Your task to perform on an android device: allow cookies in the chrome app Image 0: 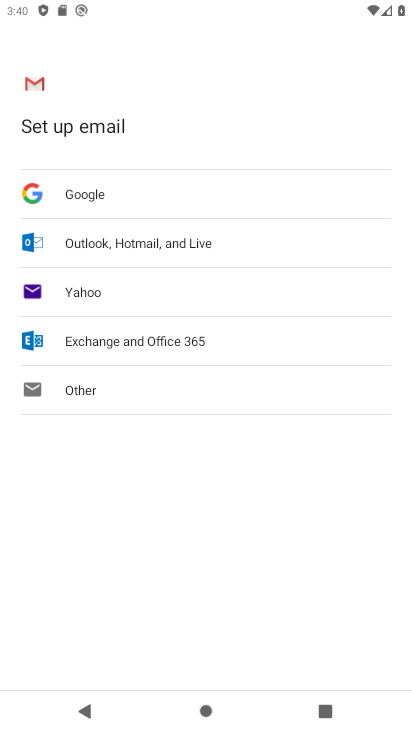
Step 0: press home button
Your task to perform on an android device: allow cookies in the chrome app Image 1: 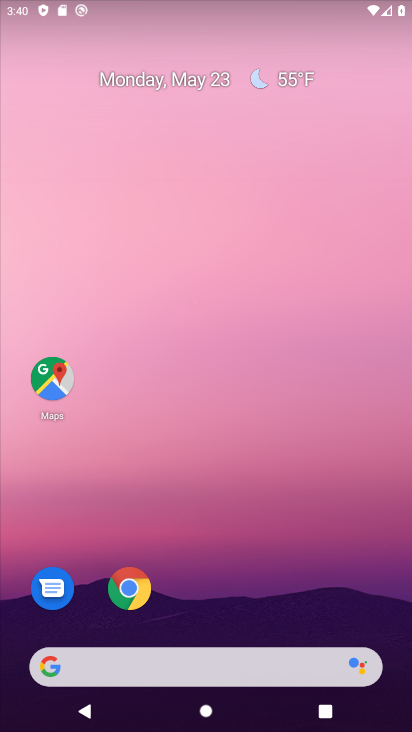
Step 1: click (122, 593)
Your task to perform on an android device: allow cookies in the chrome app Image 2: 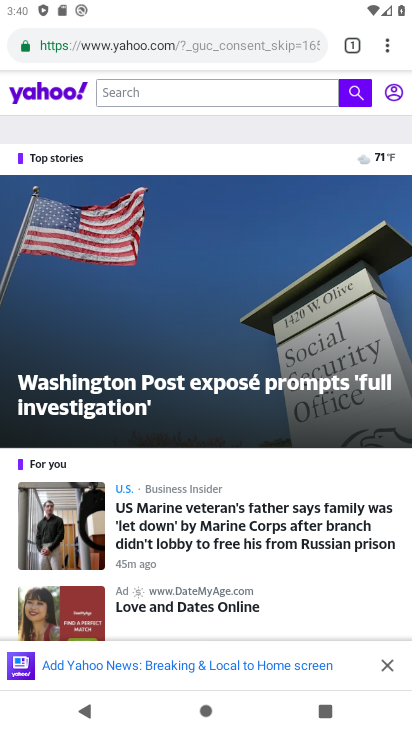
Step 2: click (381, 52)
Your task to perform on an android device: allow cookies in the chrome app Image 3: 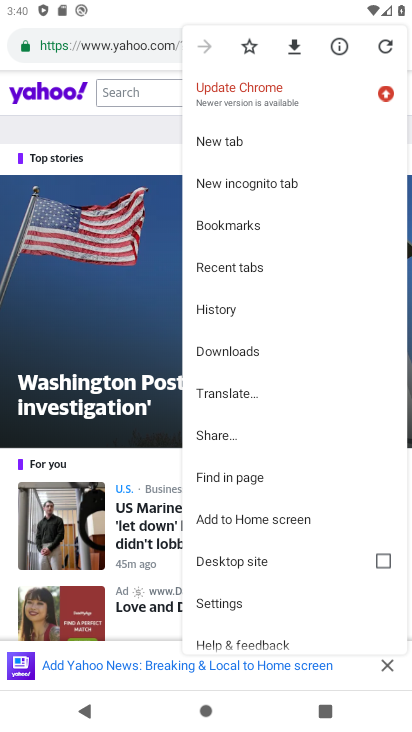
Step 3: click (231, 605)
Your task to perform on an android device: allow cookies in the chrome app Image 4: 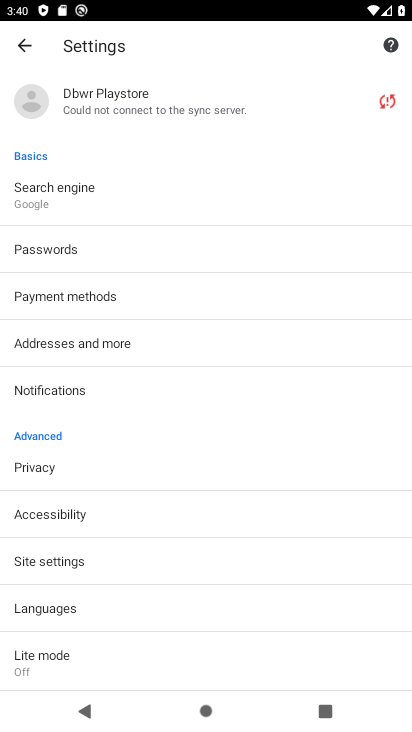
Step 4: click (71, 564)
Your task to perform on an android device: allow cookies in the chrome app Image 5: 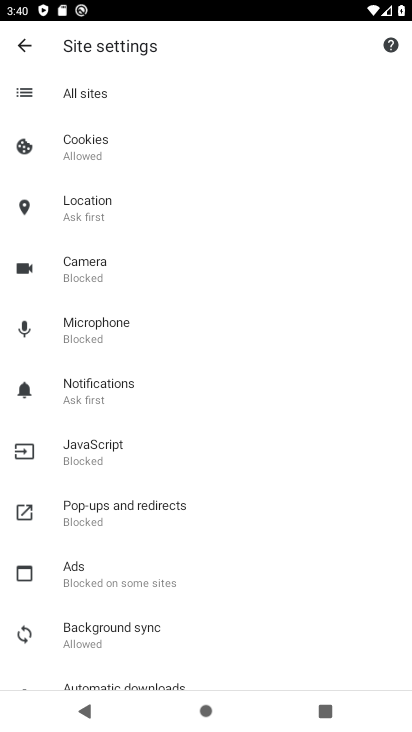
Step 5: click (254, 143)
Your task to perform on an android device: allow cookies in the chrome app Image 6: 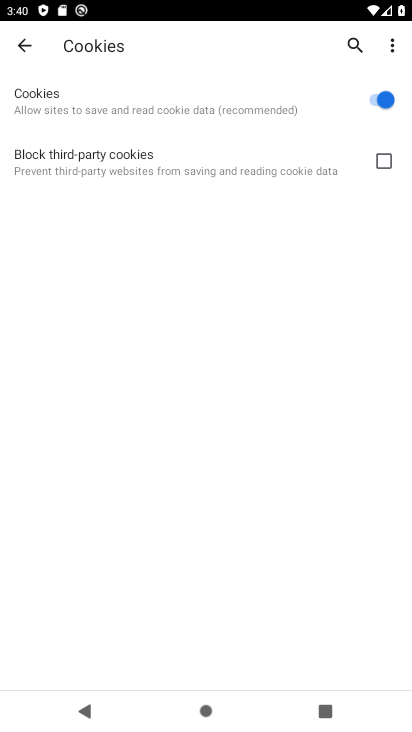
Step 6: task complete